Your task to perform on an android device: Open internet settings Image 0: 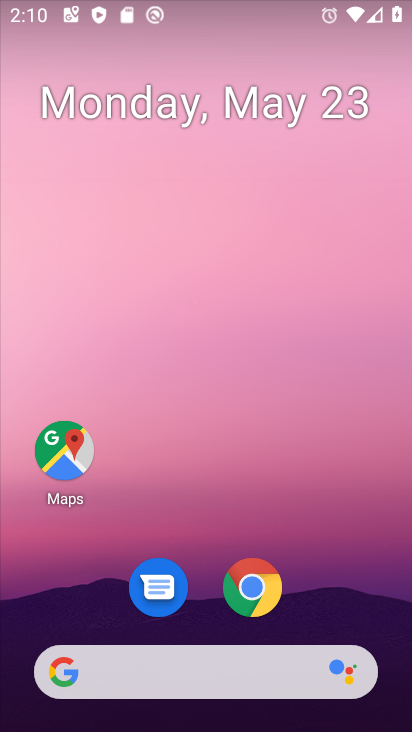
Step 0: drag from (310, 595) to (310, 193)
Your task to perform on an android device: Open internet settings Image 1: 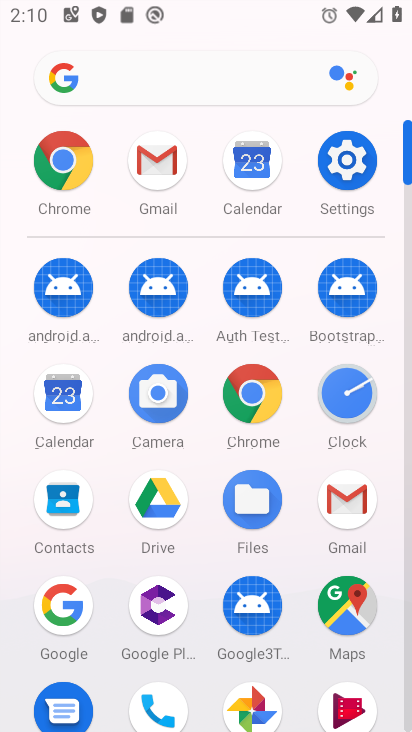
Step 1: click (349, 181)
Your task to perform on an android device: Open internet settings Image 2: 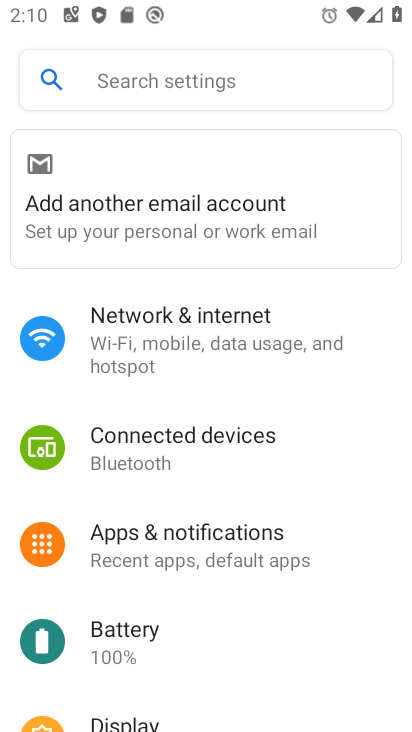
Step 2: click (236, 321)
Your task to perform on an android device: Open internet settings Image 3: 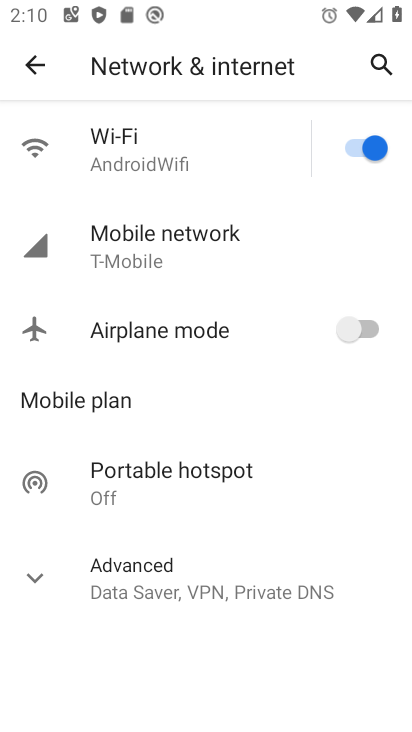
Step 3: task complete